Your task to perform on an android device: refresh tabs in the chrome app Image 0: 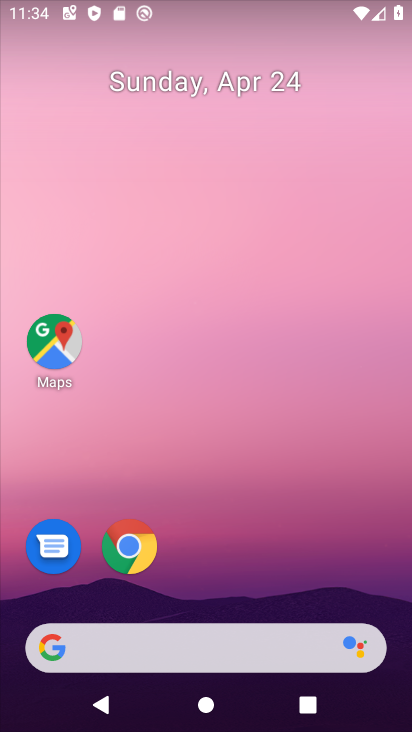
Step 0: click (142, 540)
Your task to perform on an android device: refresh tabs in the chrome app Image 1: 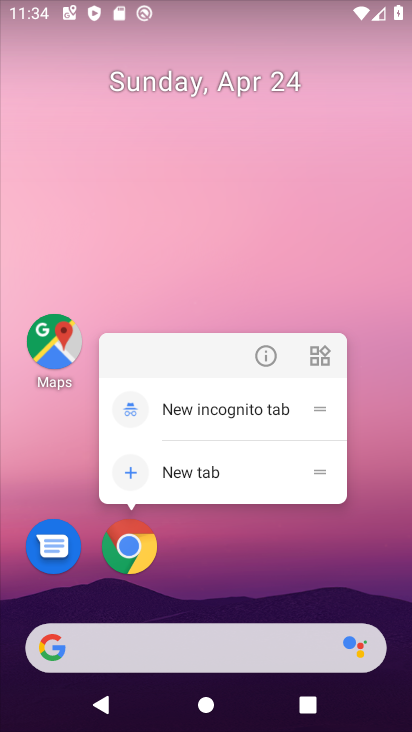
Step 1: click (134, 546)
Your task to perform on an android device: refresh tabs in the chrome app Image 2: 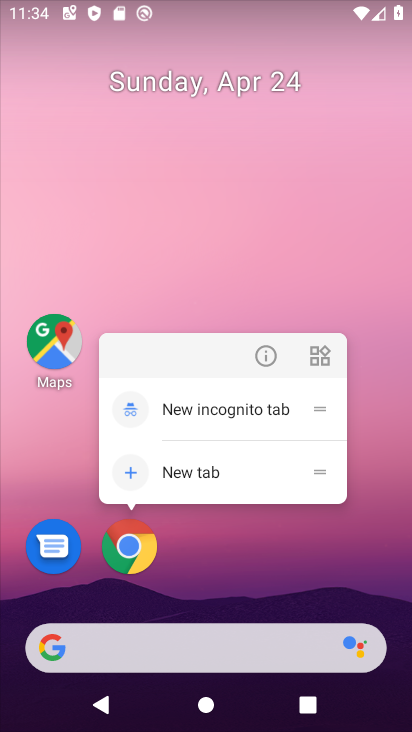
Step 2: click (133, 557)
Your task to perform on an android device: refresh tabs in the chrome app Image 3: 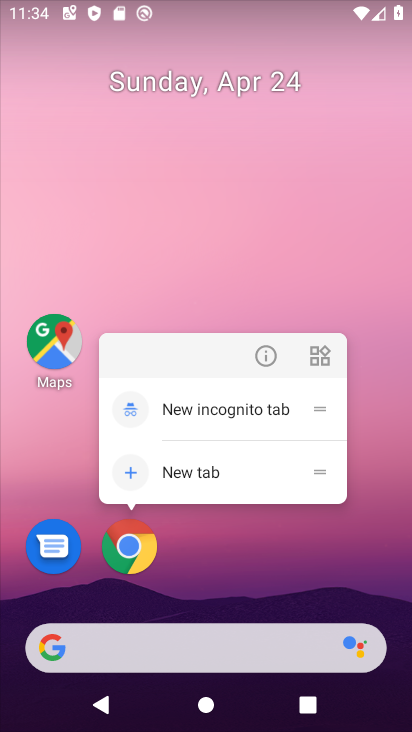
Step 3: click (137, 547)
Your task to perform on an android device: refresh tabs in the chrome app Image 4: 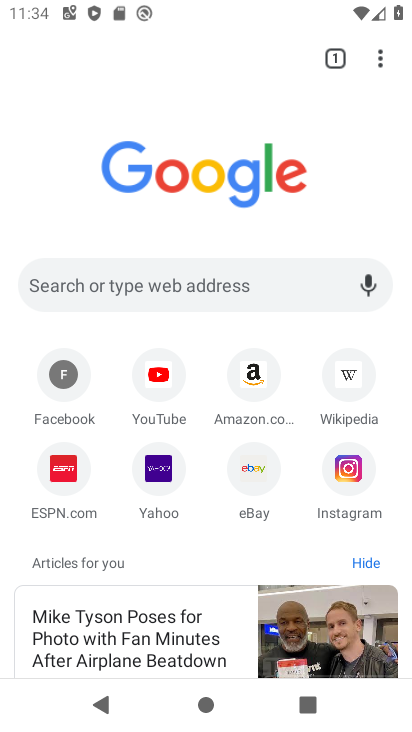
Step 4: click (382, 58)
Your task to perform on an android device: refresh tabs in the chrome app Image 5: 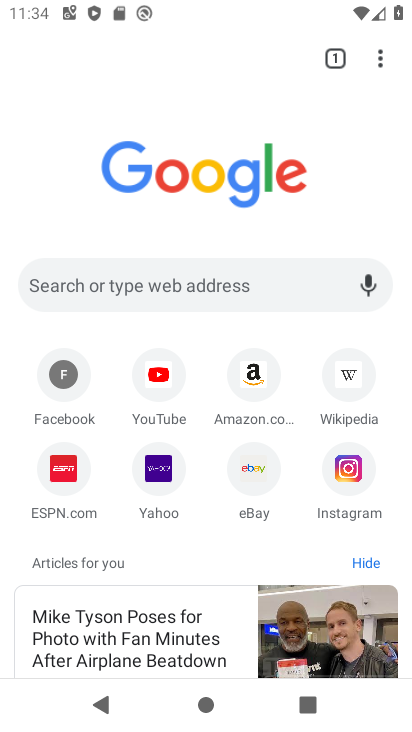
Step 5: task complete